Your task to perform on an android device: Search for the new Jordans on Nike.com Image 0: 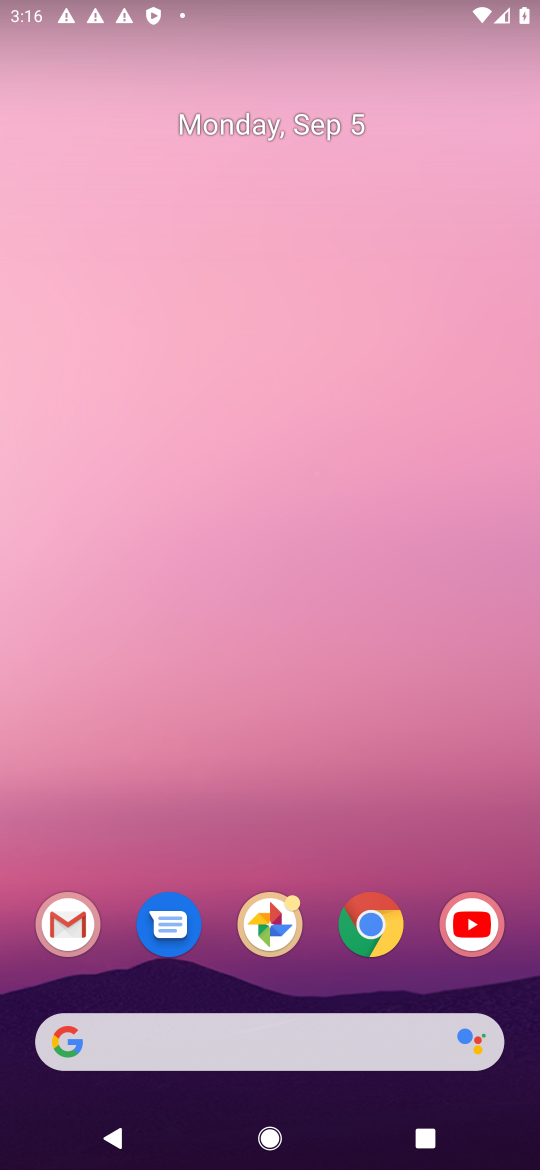
Step 0: drag from (265, 995) to (401, 334)
Your task to perform on an android device: Search for the new Jordans on Nike.com Image 1: 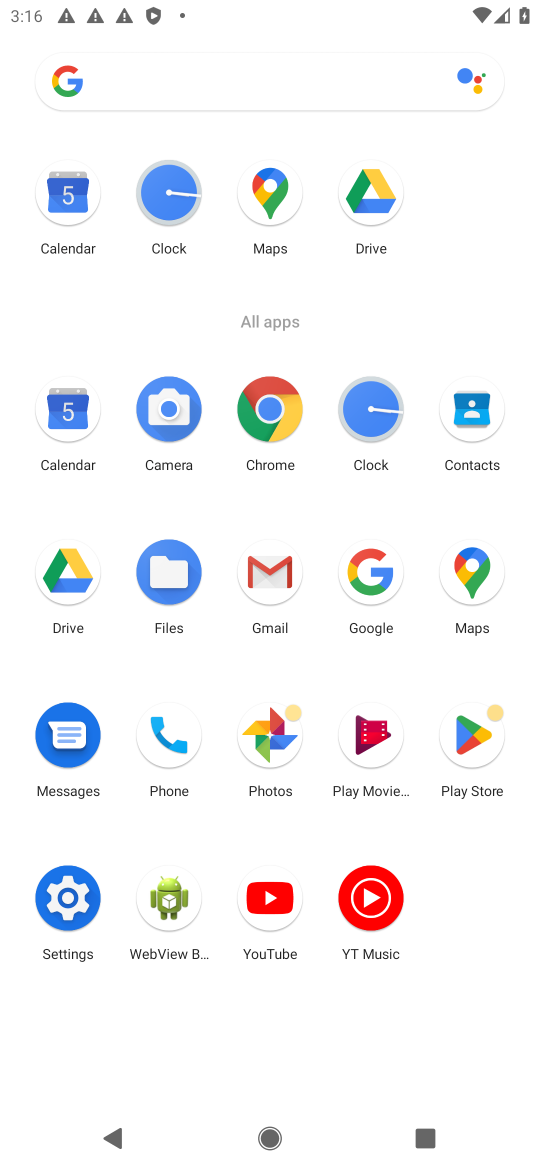
Step 1: click (273, 442)
Your task to perform on an android device: Search for the new Jordans on Nike.com Image 2: 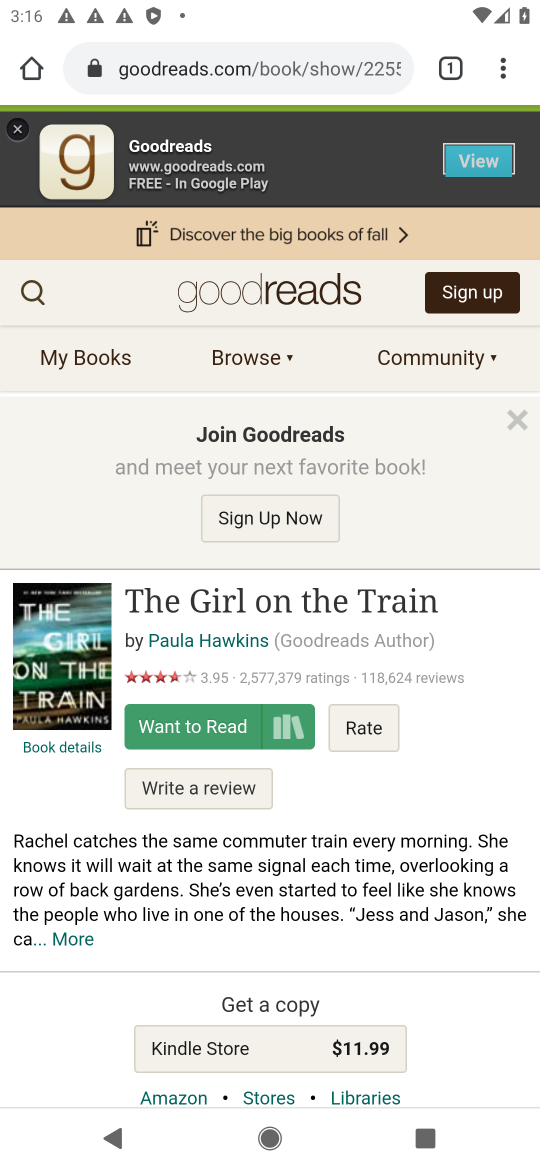
Step 2: click (20, 291)
Your task to perform on an android device: Search for the new Jordans on Nike.com Image 3: 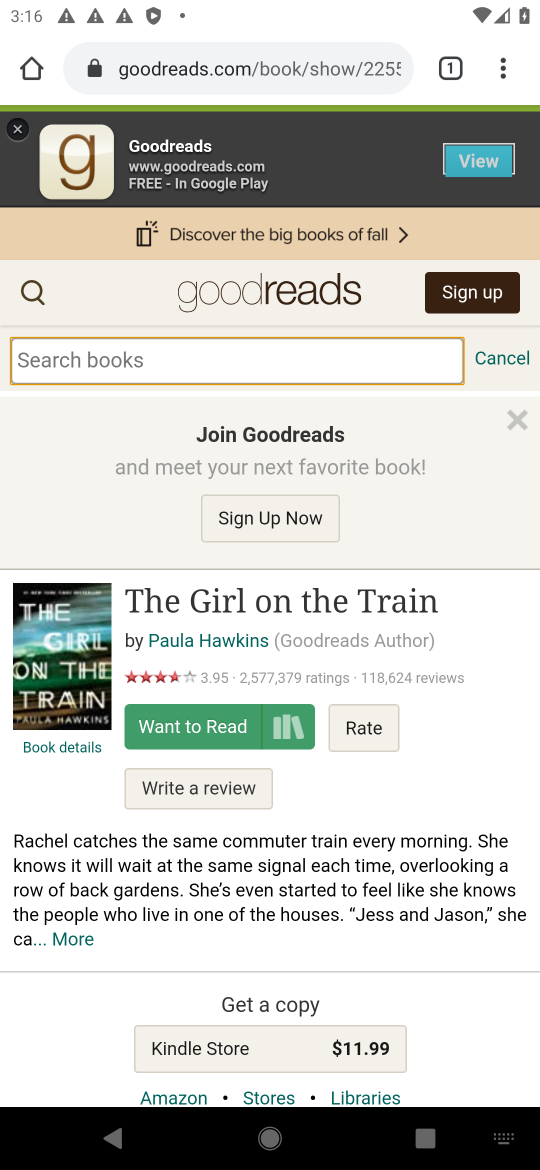
Step 3: click (151, 79)
Your task to perform on an android device: Search for the new Jordans on Nike.com Image 4: 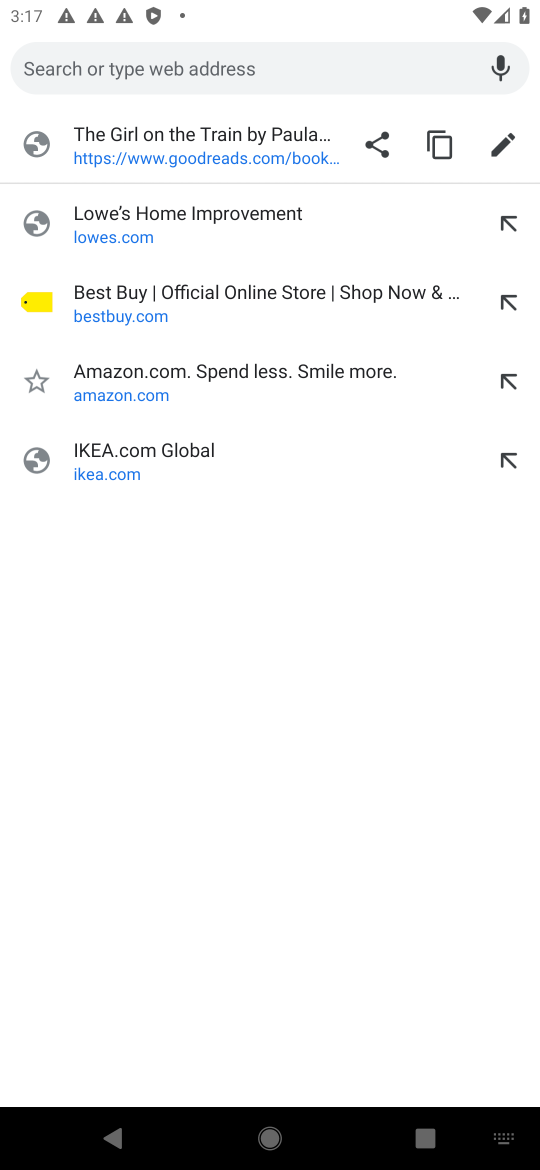
Step 4: type "Nike.com"
Your task to perform on an android device: Search for the new Jordans on Nike.com Image 5: 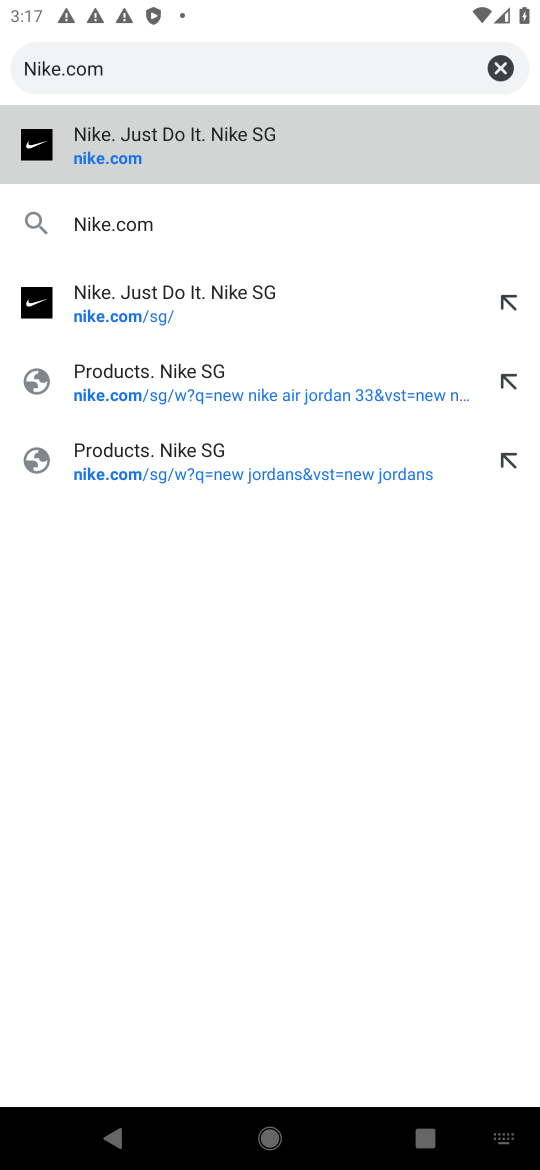
Step 5: click (44, 141)
Your task to perform on an android device: Search for the new Jordans on Nike.com Image 6: 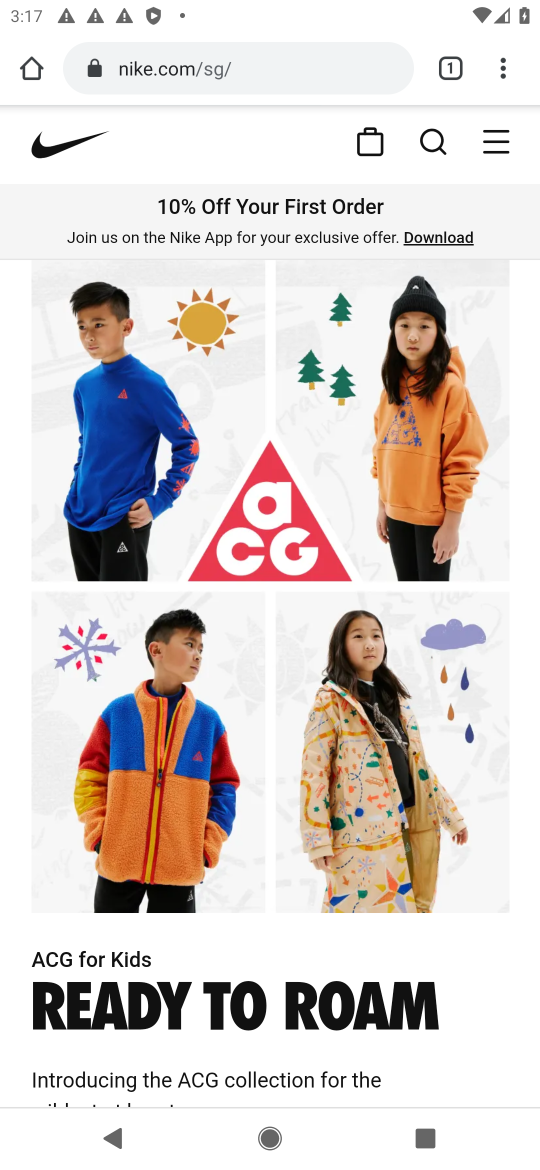
Step 6: click (425, 146)
Your task to perform on an android device: Search for the new Jordans on Nike.com Image 7: 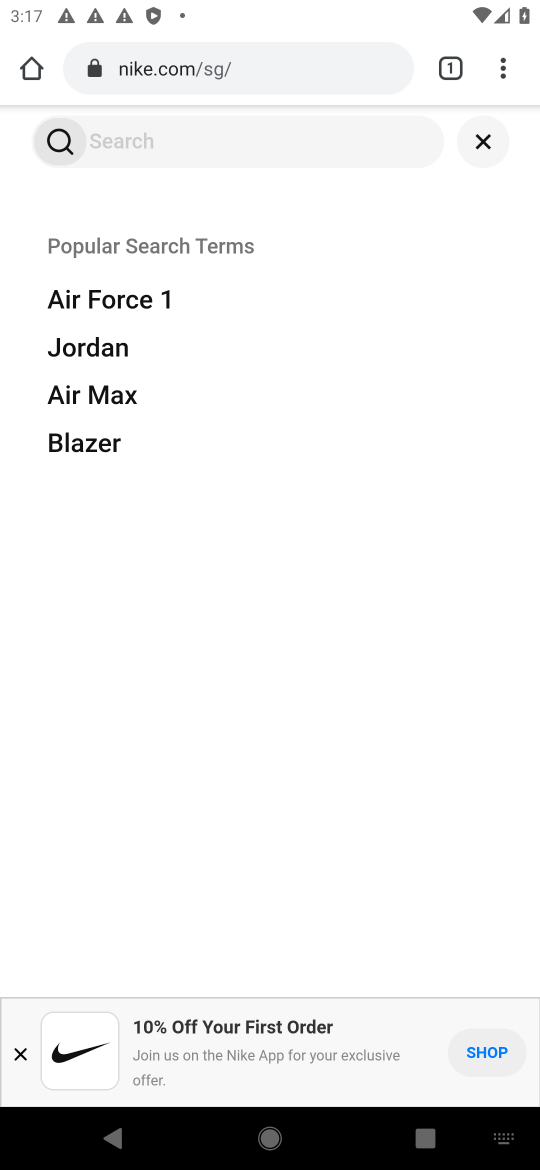
Step 7: type "new jordans"
Your task to perform on an android device: Search for the new Jordans on Nike.com Image 8: 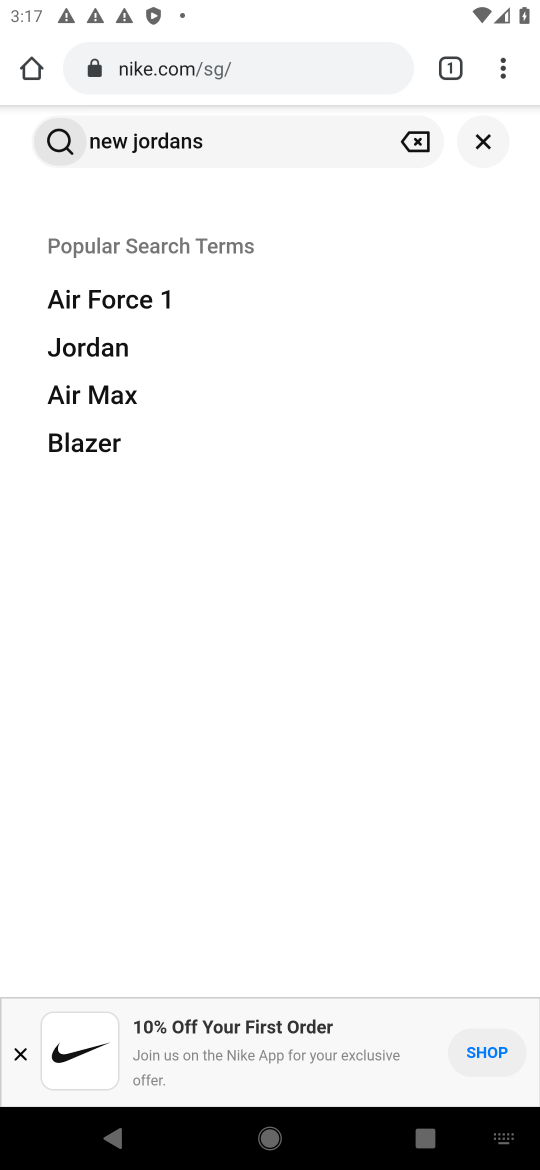
Step 8: click (65, 146)
Your task to perform on an android device: Search for the new Jordans on Nike.com Image 9: 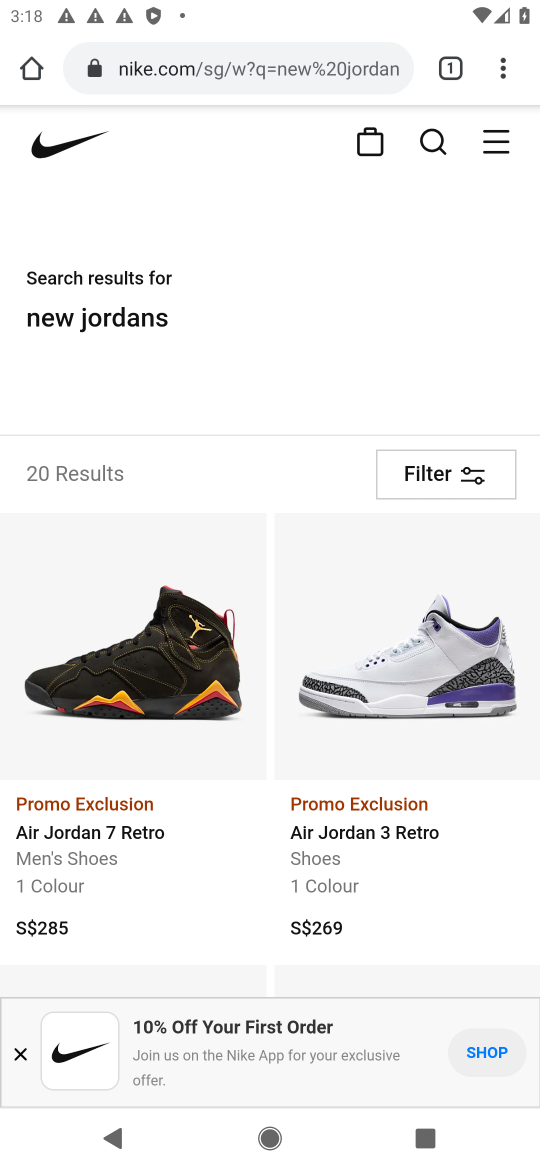
Step 9: task complete